Your task to perform on an android device: Open privacy settings Image 0: 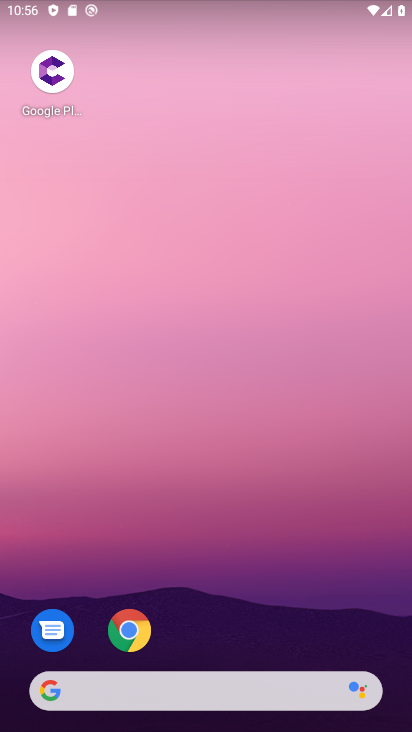
Step 0: drag from (244, 605) to (225, 162)
Your task to perform on an android device: Open privacy settings Image 1: 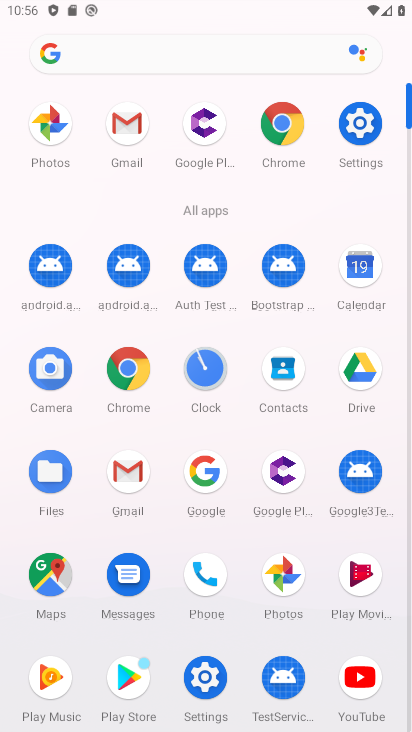
Step 1: click (361, 122)
Your task to perform on an android device: Open privacy settings Image 2: 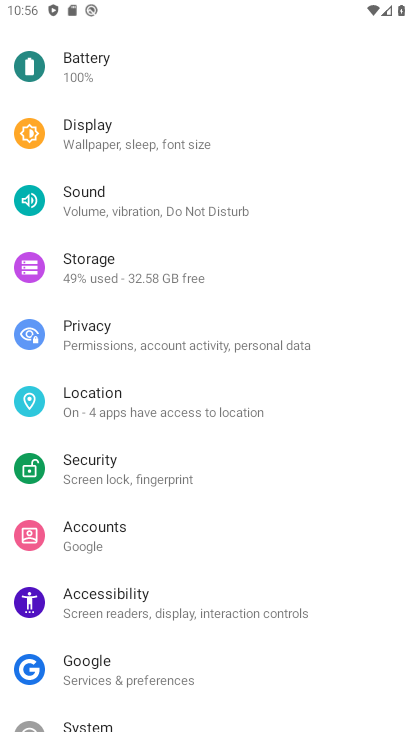
Step 2: click (119, 347)
Your task to perform on an android device: Open privacy settings Image 3: 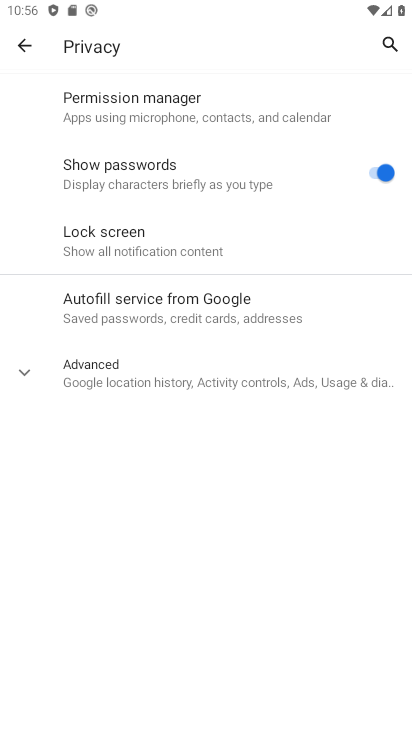
Step 3: task complete